Your task to perform on an android device: Open battery settings Image 0: 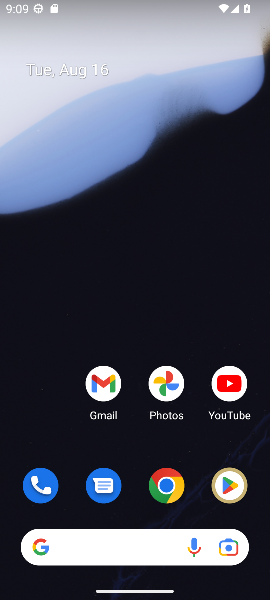
Step 0: drag from (164, 340) to (105, 48)
Your task to perform on an android device: Open battery settings Image 1: 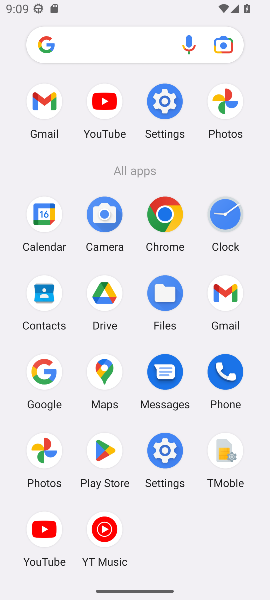
Step 1: click (158, 451)
Your task to perform on an android device: Open battery settings Image 2: 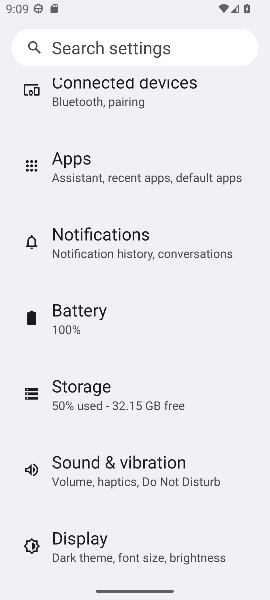
Step 2: click (92, 314)
Your task to perform on an android device: Open battery settings Image 3: 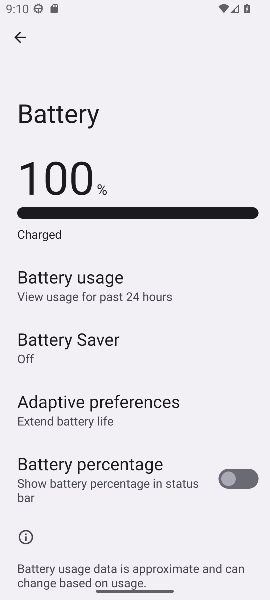
Step 3: task complete